Your task to perform on an android device: Go to ESPN.com Image 0: 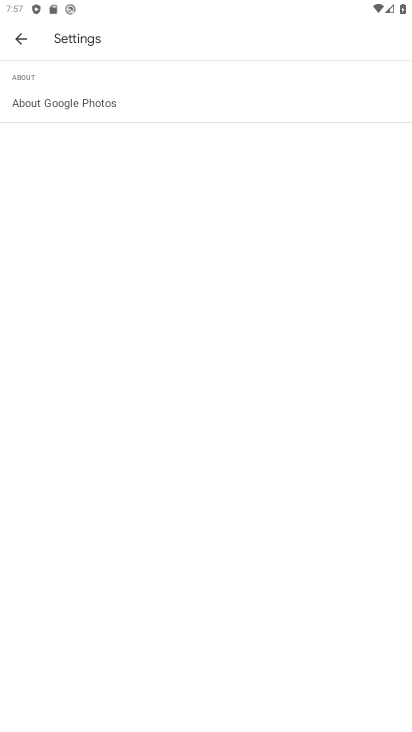
Step 0: press home button
Your task to perform on an android device: Go to ESPN.com Image 1: 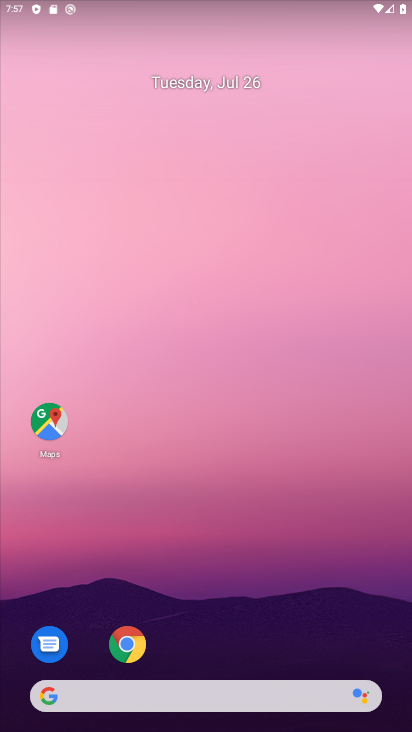
Step 1: drag from (195, 677) to (232, 252)
Your task to perform on an android device: Go to ESPN.com Image 2: 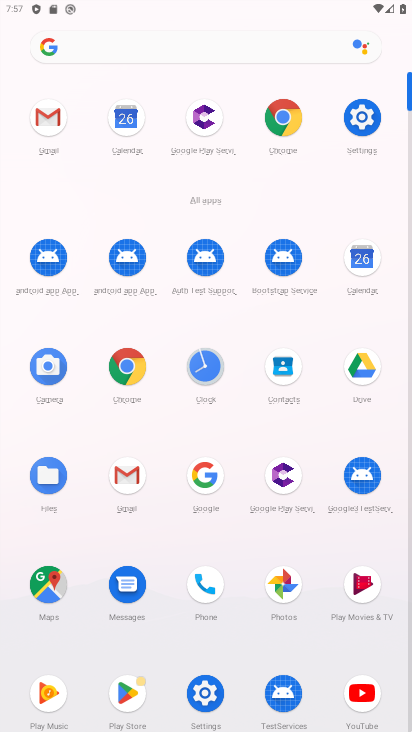
Step 2: click (131, 358)
Your task to perform on an android device: Go to ESPN.com Image 3: 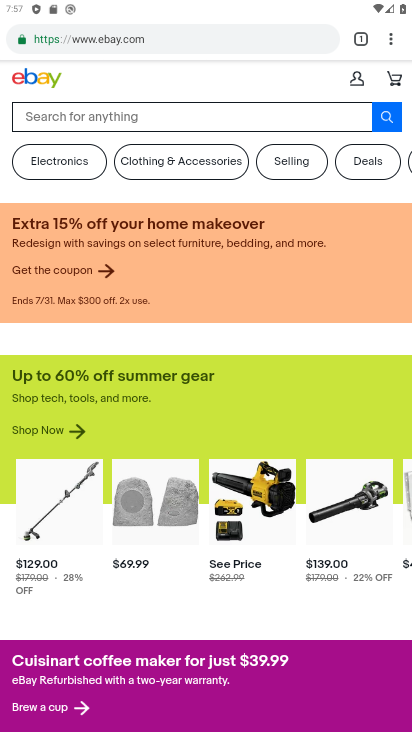
Step 3: click (380, 38)
Your task to perform on an android device: Go to ESPN.com Image 4: 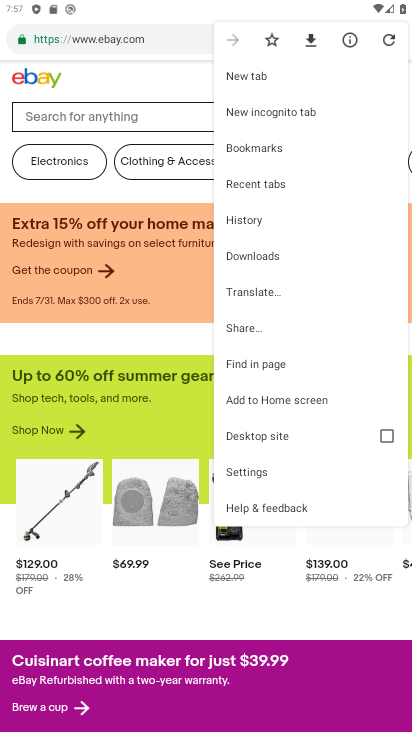
Step 4: click (251, 80)
Your task to perform on an android device: Go to ESPN.com Image 5: 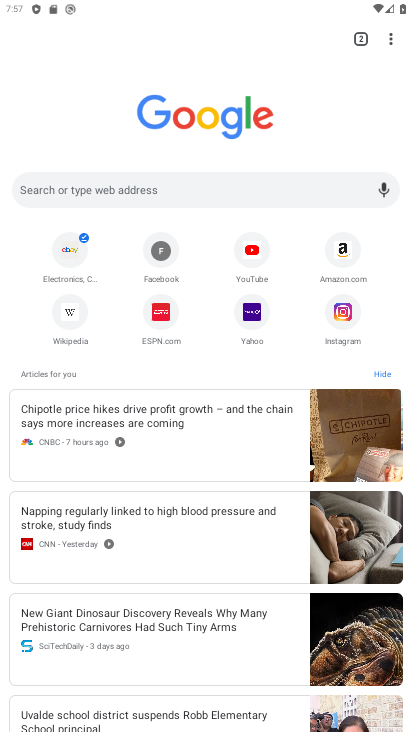
Step 5: click (162, 307)
Your task to perform on an android device: Go to ESPN.com Image 6: 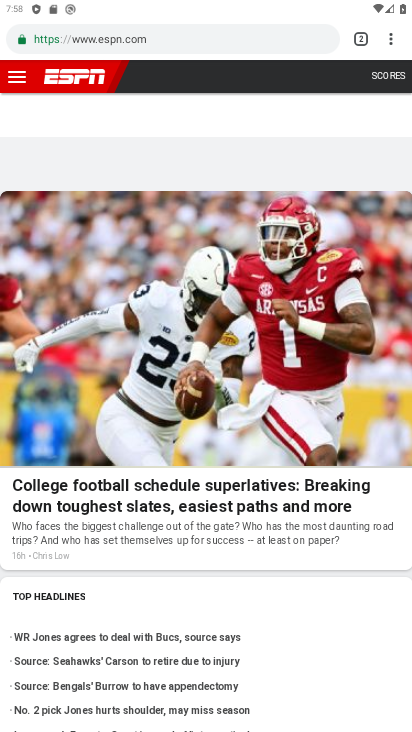
Step 6: task complete